Your task to perform on an android device: all mails in gmail Image 0: 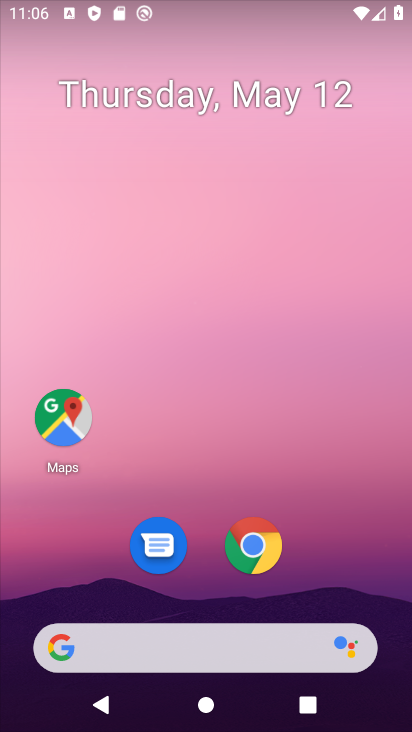
Step 0: drag from (254, 667) to (196, 120)
Your task to perform on an android device: all mails in gmail Image 1: 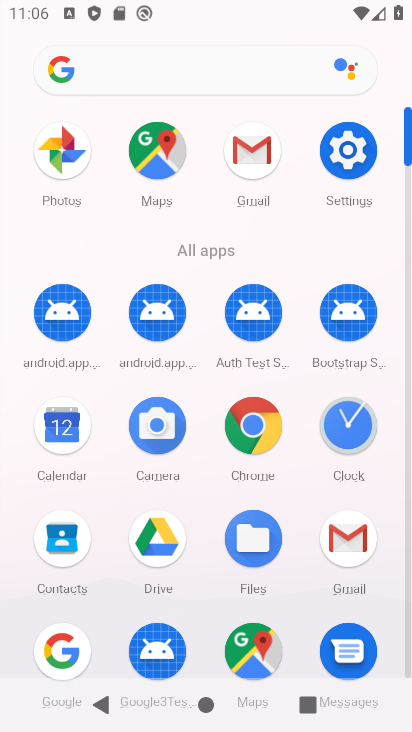
Step 1: click (266, 177)
Your task to perform on an android device: all mails in gmail Image 2: 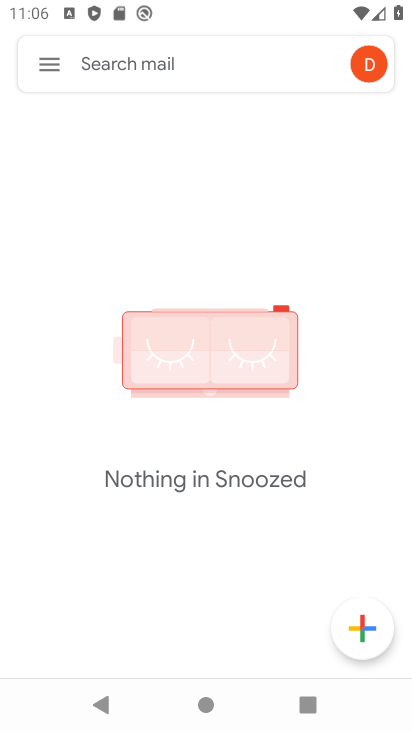
Step 2: click (46, 74)
Your task to perform on an android device: all mails in gmail Image 3: 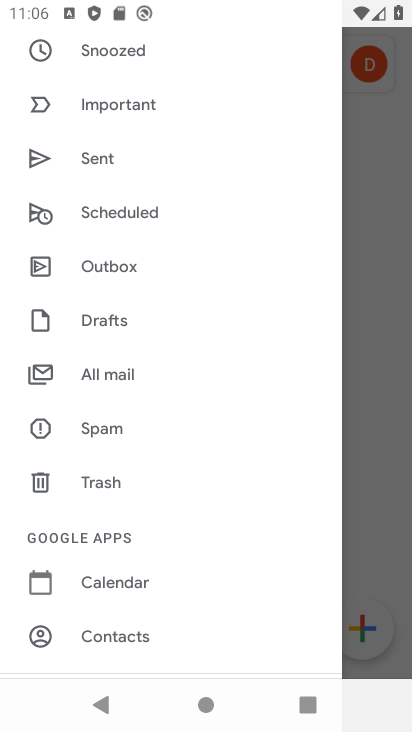
Step 3: drag from (120, 583) to (168, 391)
Your task to perform on an android device: all mails in gmail Image 4: 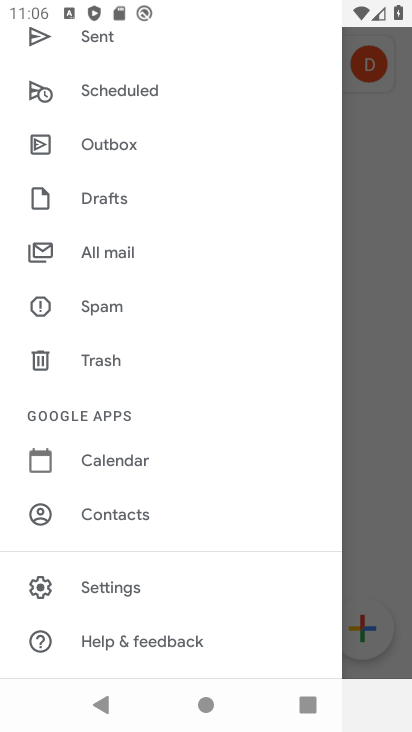
Step 4: click (121, 584)
Your task to perform on an android device: all mails in gmail Image 5: 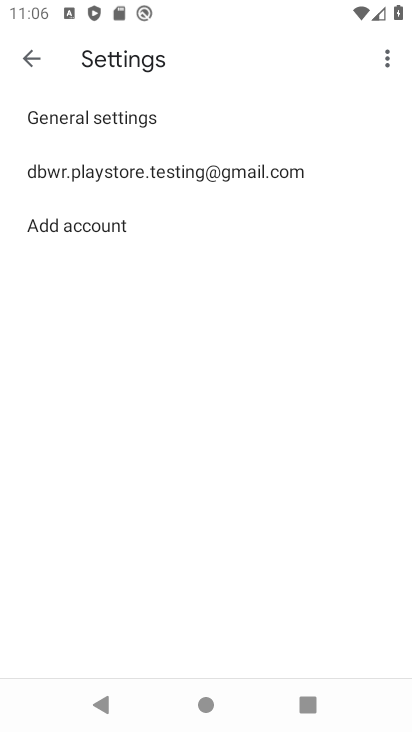
Step 5: click (200, 173)
Your task to perform on an android device: all mails in gmail Image 6: 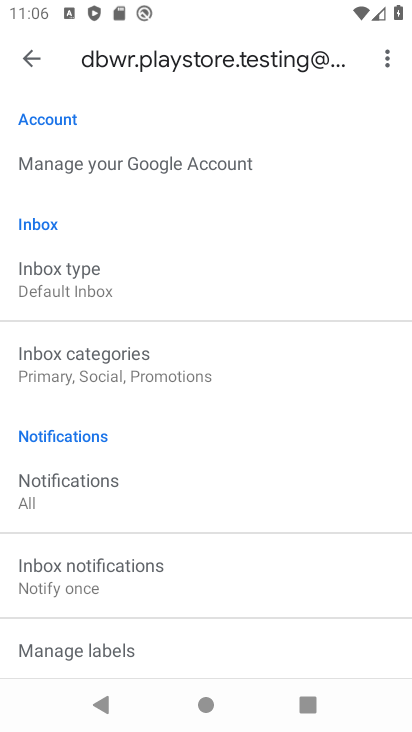
Step 6: click (22, 66)
Your task to perform on an android device: all mails in gmail Image 7: 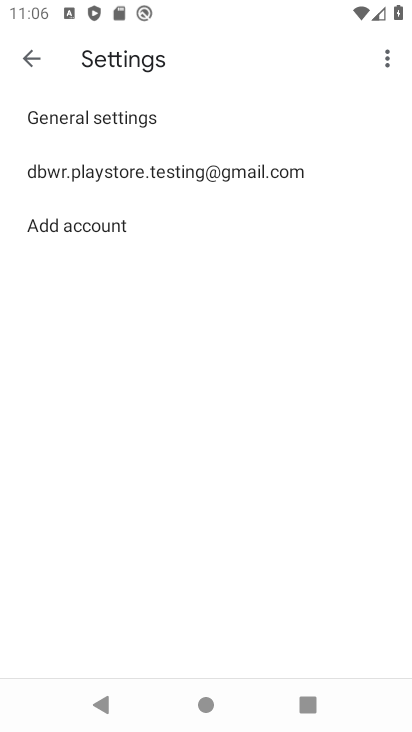
Step 7: click (22, 66)
Your task to perform on an android device: all mails in gmail Image 8: 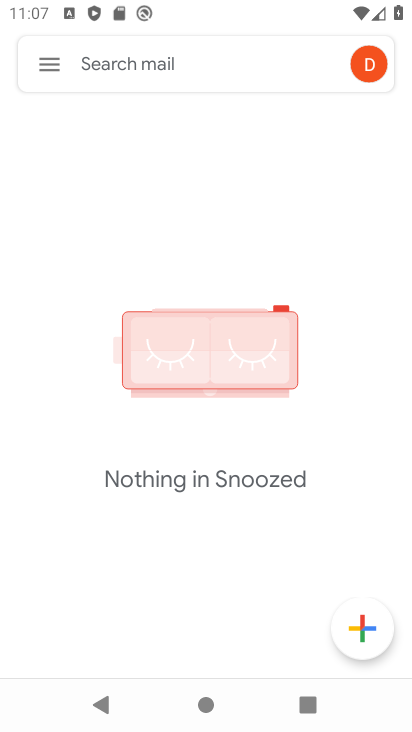
Step 8: click (49, 64)
Your task to perform on an android device: all mails in gmail Image 9: 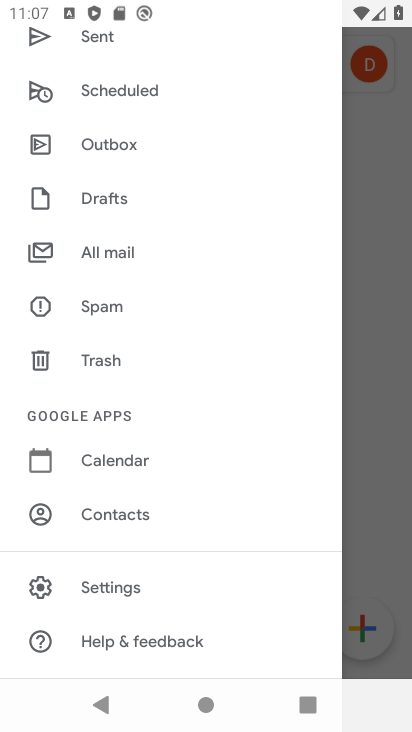
Step 9: click (133, 255)
Your task to perform on an android device: all mails in gmail Image 10: 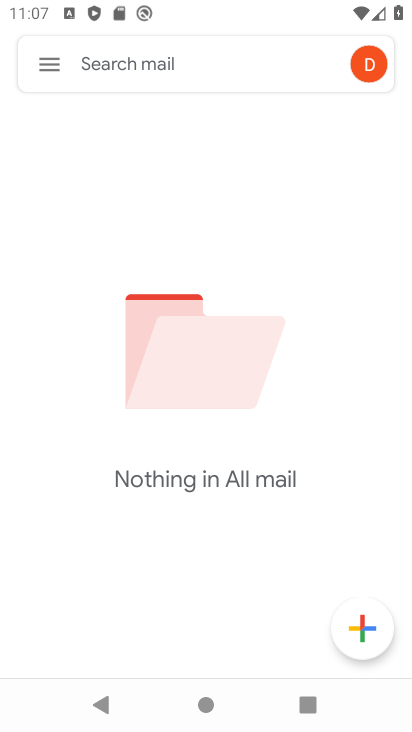
Step 10: task complete